Your task to perform on an android device: Check the news Image 0: 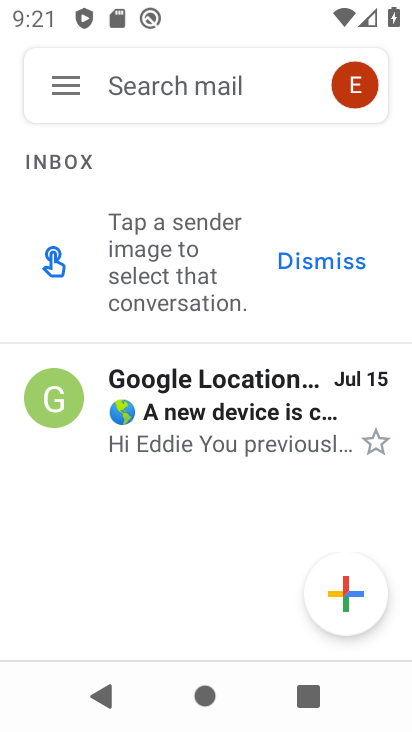
Step 0: press back button
Your task to perform on an android device: Check the news Image 1: 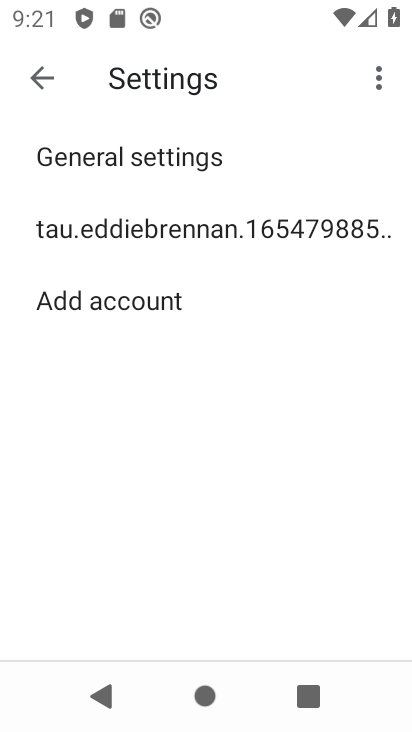
Step 1: press back button
Your task to perform on an android device: Check the news Image 2: 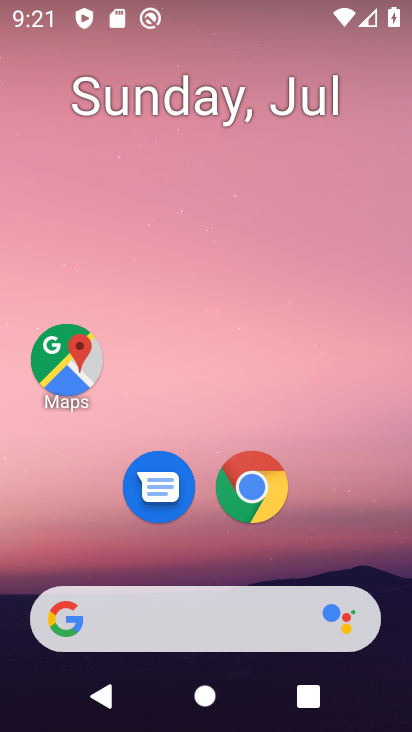
Step 2: click (196, 638)
Your task to perform on an android device: Check the news Image 3: 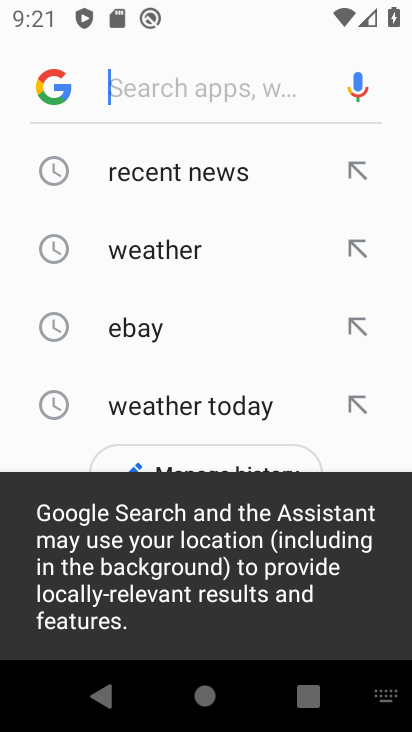
Step 3: click (158, 69)
Your task to perform on an android device: Check the news Image 4: 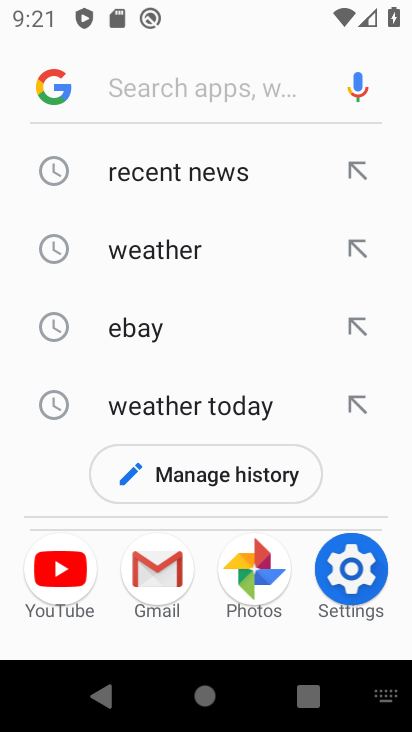
Step 4: type "news"
Your task to perform on an android device: Check the news Image 5: 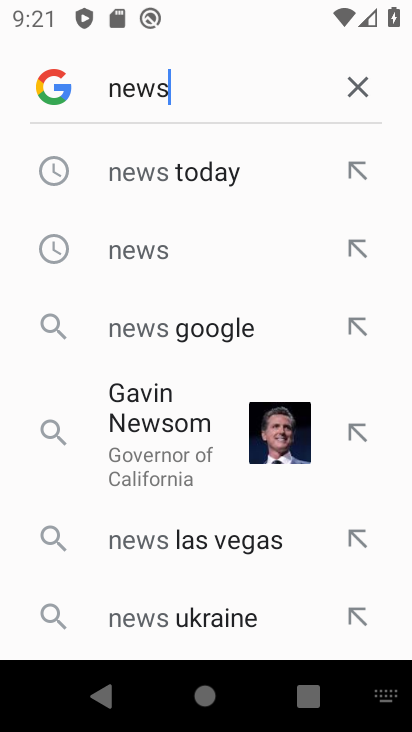
Step 5: click (187, 250)
Your task to perform on an android device: Check the news Image 6: 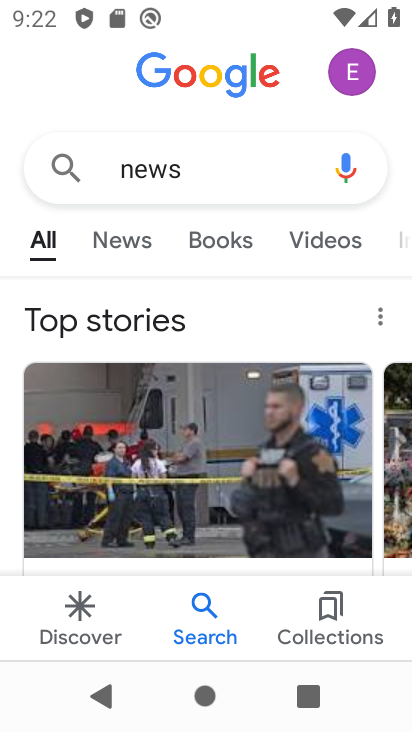
Step 6: task complete